Your task to perform on an android device: move an email to a new category in the gmail app Image 0: 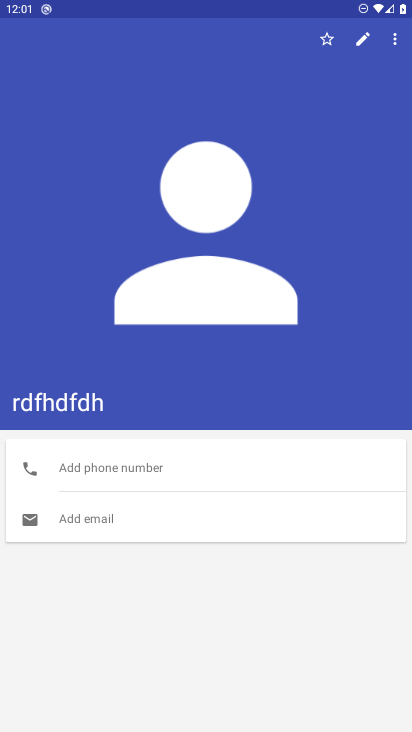
Step 0: press home button
Your task to perform on an android device: move an email to a new category in the gmail app Image 1: 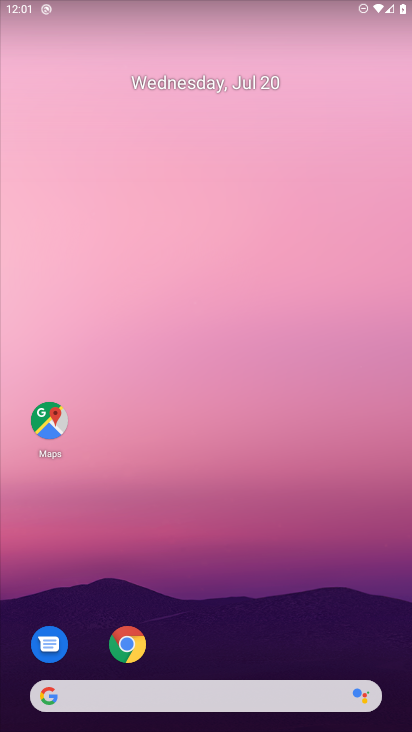
Step 1: drag from (10, 708) to (221, 168)
Your task to perform on an android device: move an email to a new category in the gmail app Image 2: 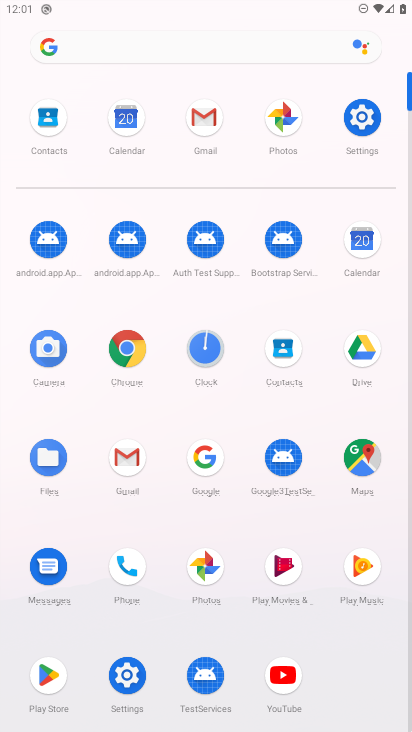
Step 2: click (122, 468)
Your task to perform on an android device: move an email to a new category in the gmail app Image 3: 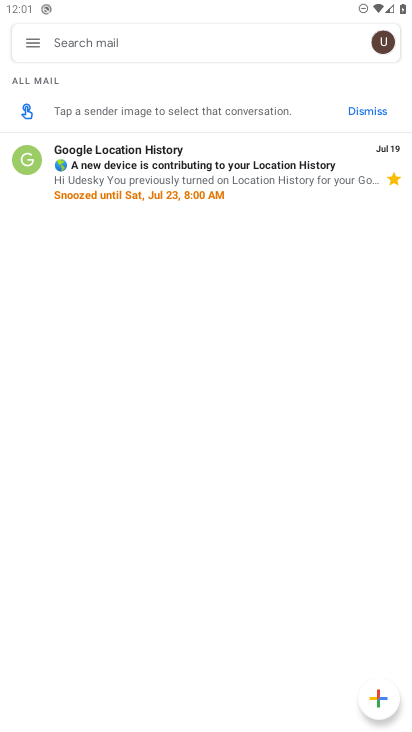
Step 3: click (32, 43)
Your task to perform on an android device: move an email to a new category in the gmail app Image 4: 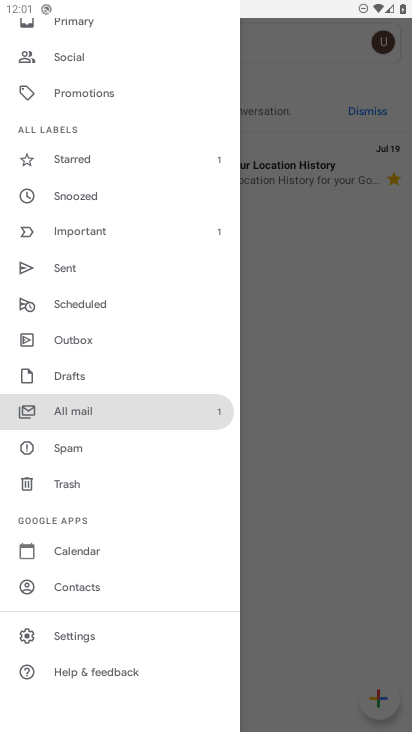
Step 4: drag from (146, 114) to (131, 652)
Your task to perform on an android device: move an email to a new category in the gmail app Image 5: 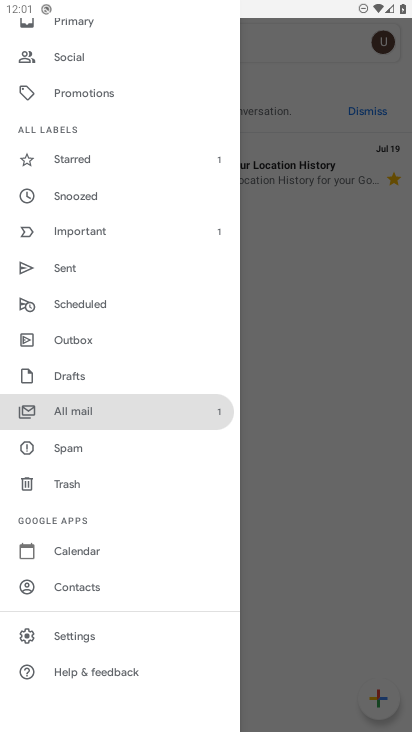
Step 5: drag from (137, 187) to (137, 613)
Your task to perform on an android device: move an email to a new category in the gmail app Image 6: 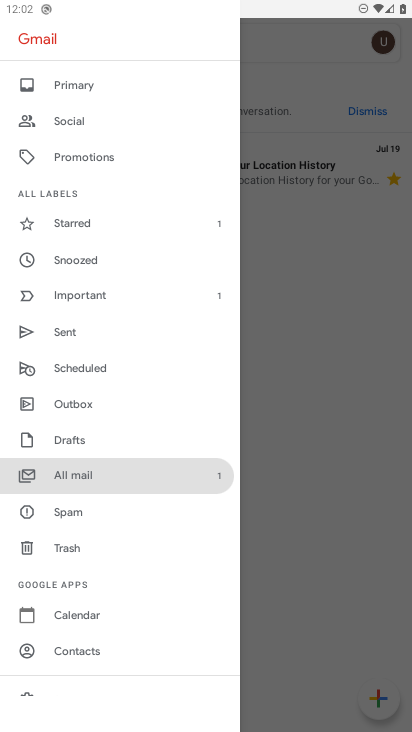
Step 6: click (125, 94)
Your task to perform on an android device: move an email to a new category in the gmail app Image 7: 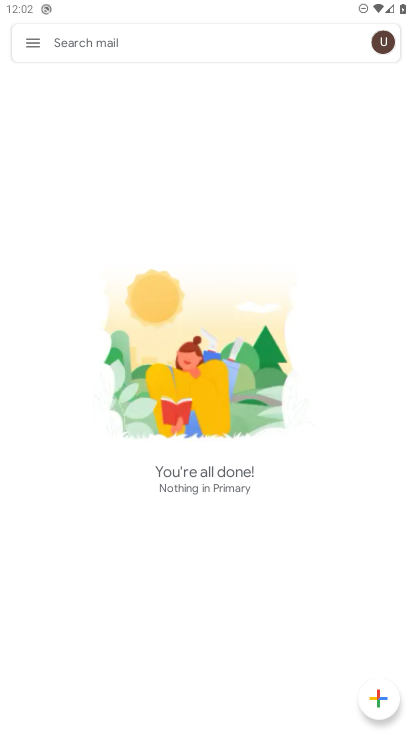
Step 7: task complete